Your task to perform on an android device: Turn off the flashlight Image 0: 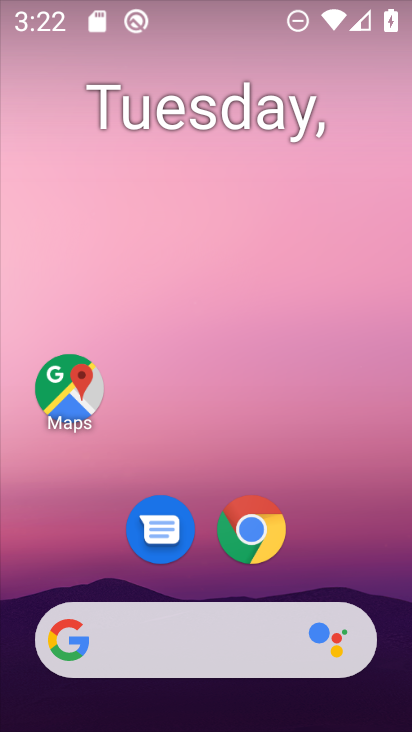
Step 0: drag from (270, 563) to (244, 197)
Your task to perform on an android device: Turn off the flashlight Image 1: 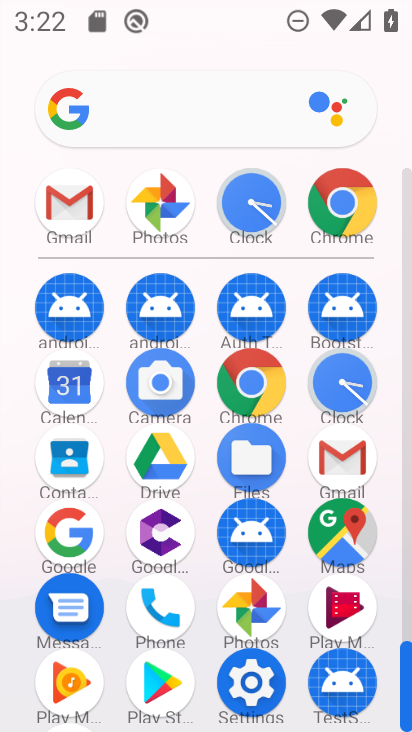
Step 1: click (247, 666)
Your task to perform on an android device: Turn off the flashlight Image 2: 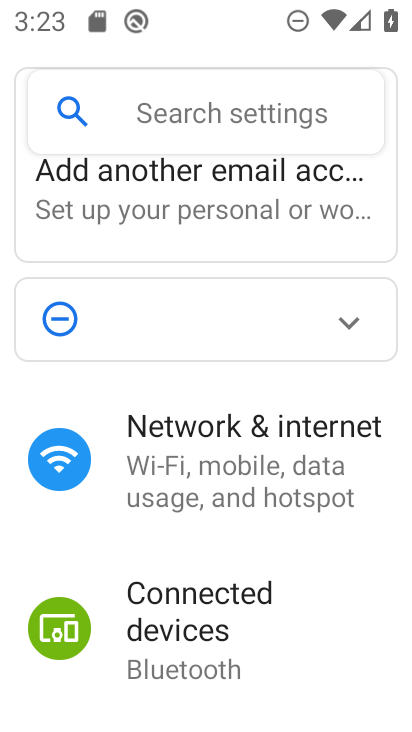
Step 2: task complete